Your task to perform on an android device: Go to display settings Image 0: 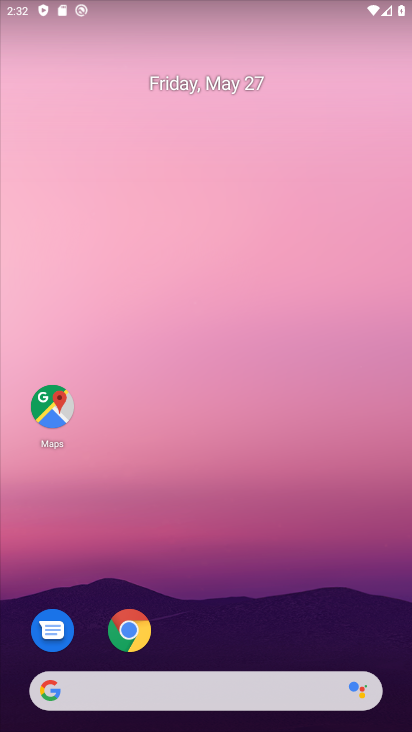
Step 0: drag from (222, 666) to (206, 13)
Your task to perform on an android device: Go to display settings Image 1: 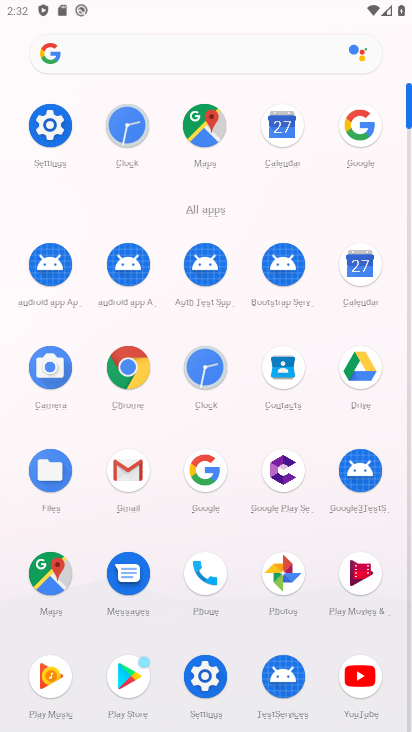
Step 1: click (214, 680)
Your task to perform on an android device: Go to display settings Image 2: 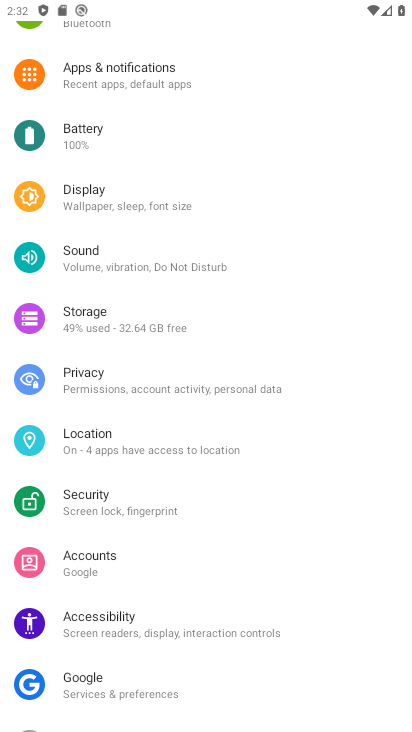
Step 2: click (103, 189)
Your task to perform on an android device: Go to display settings Image 3: 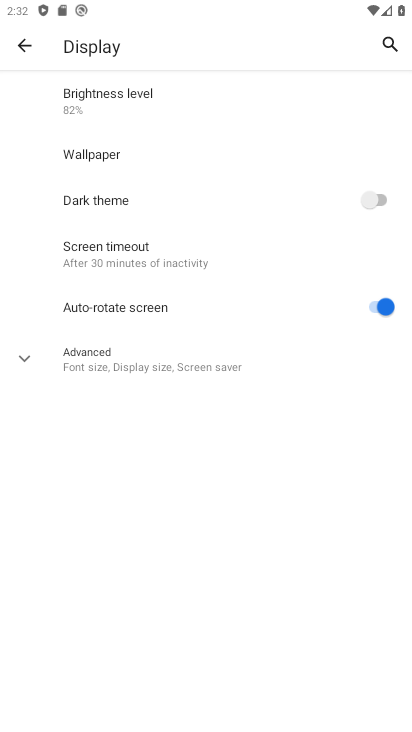
Step 3: click (67, 360)
Your task to perform on an android device: Go to display settings Image 4: 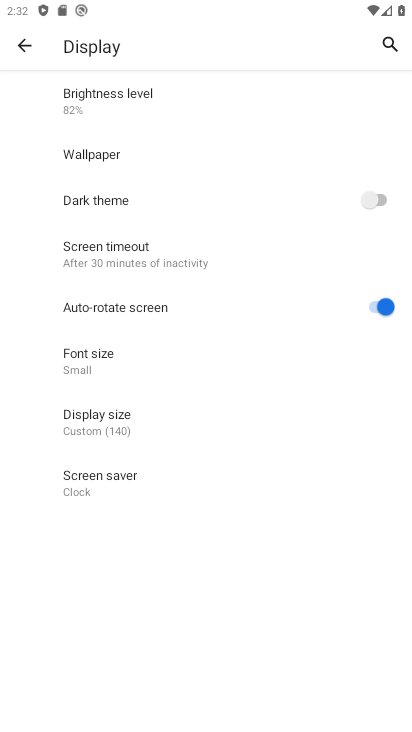
Step 4: task complete